Your task to perform on an android device: How much does a 2 bedroom apartment rent for in Los Angeles? Image 0: 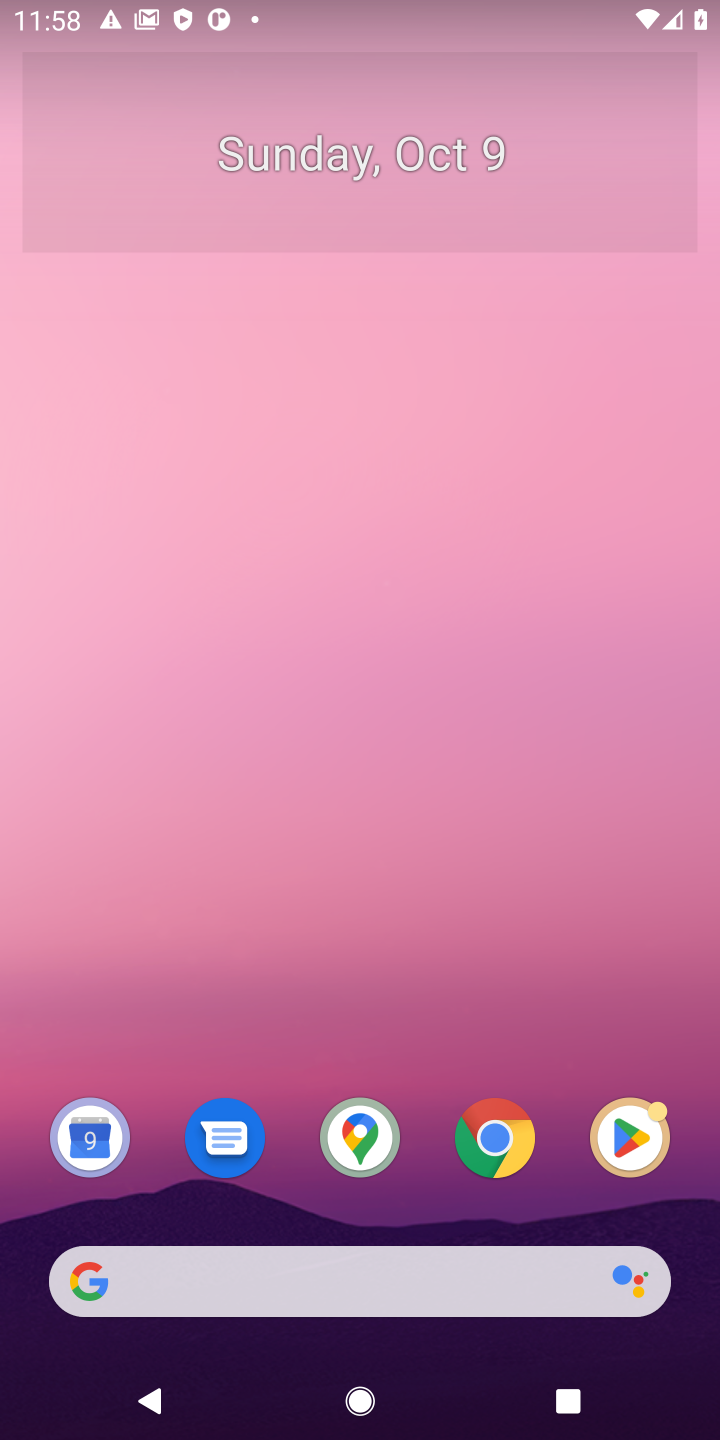
Step 0: click (501, 1153)
Your task to perform on an android device: How much does a 2 bedroom apartment rent for in Los Angeles? Image 1: 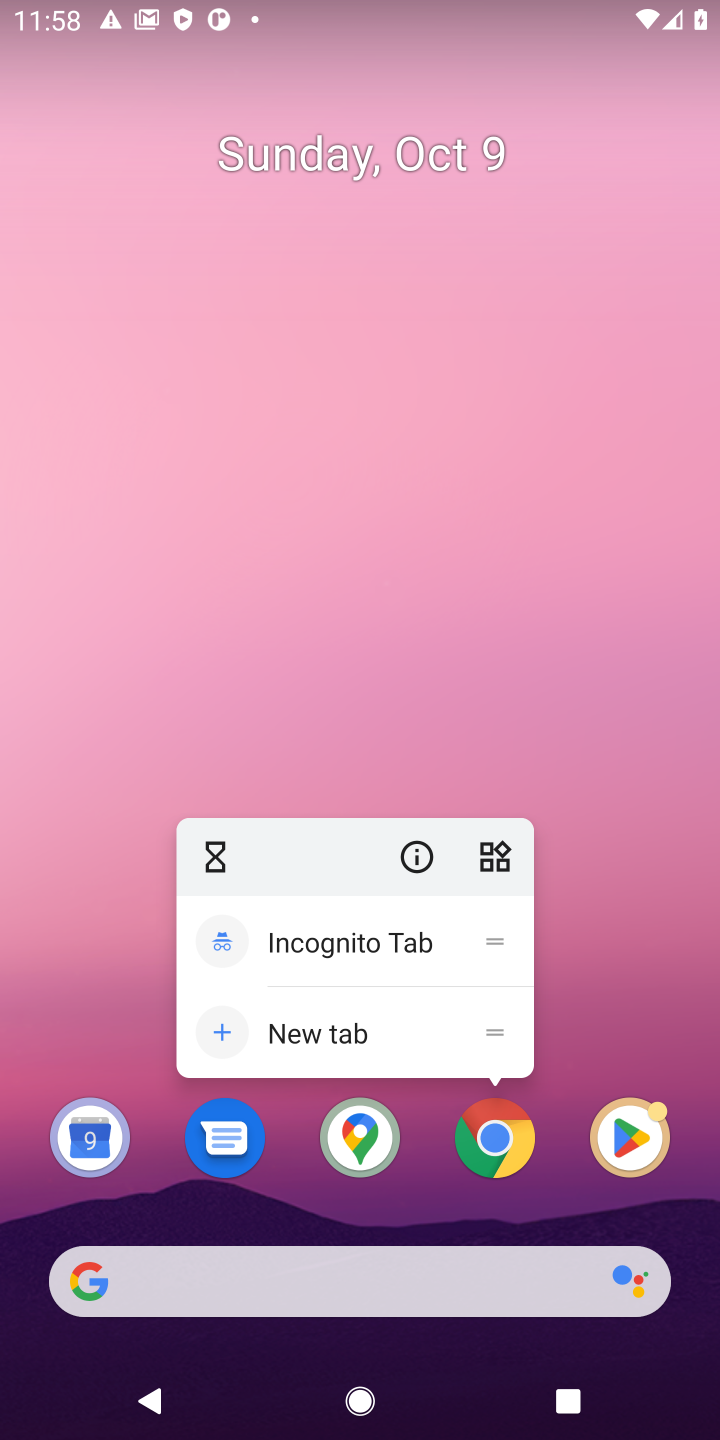
Step 1: click (501, 1153)
Your task to perform on an android device: How much does a 2 bedroom apartment rent for in Los Angeles? Image 2: 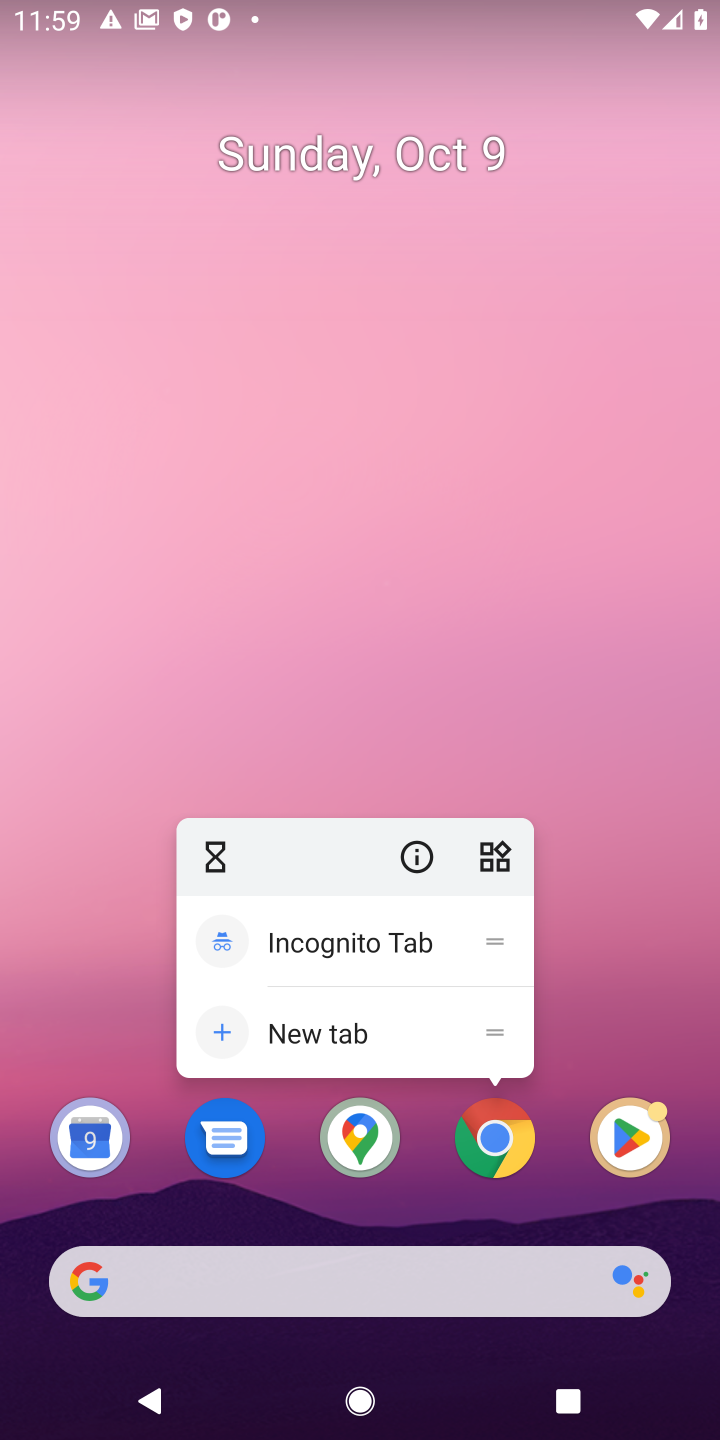
Step 2: click (501, 1153)
Your task to perform on an android device: How much does a 2 bedroom apartment rent for in Los Angeles? Image 3: 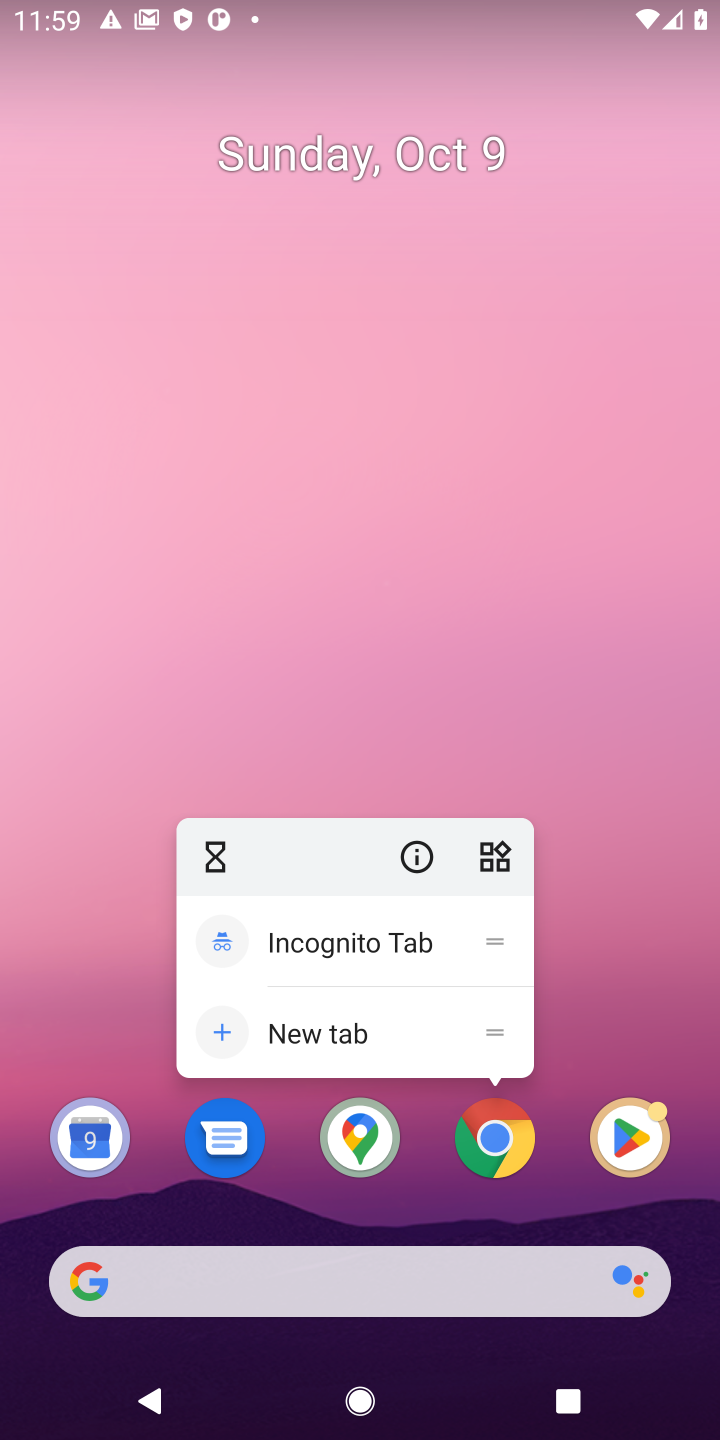
Step 3: click (491, 1139)
Your task to perform on an android device: How much does a 2 bedroom apartment rent for in Los Angeles? Image 4: 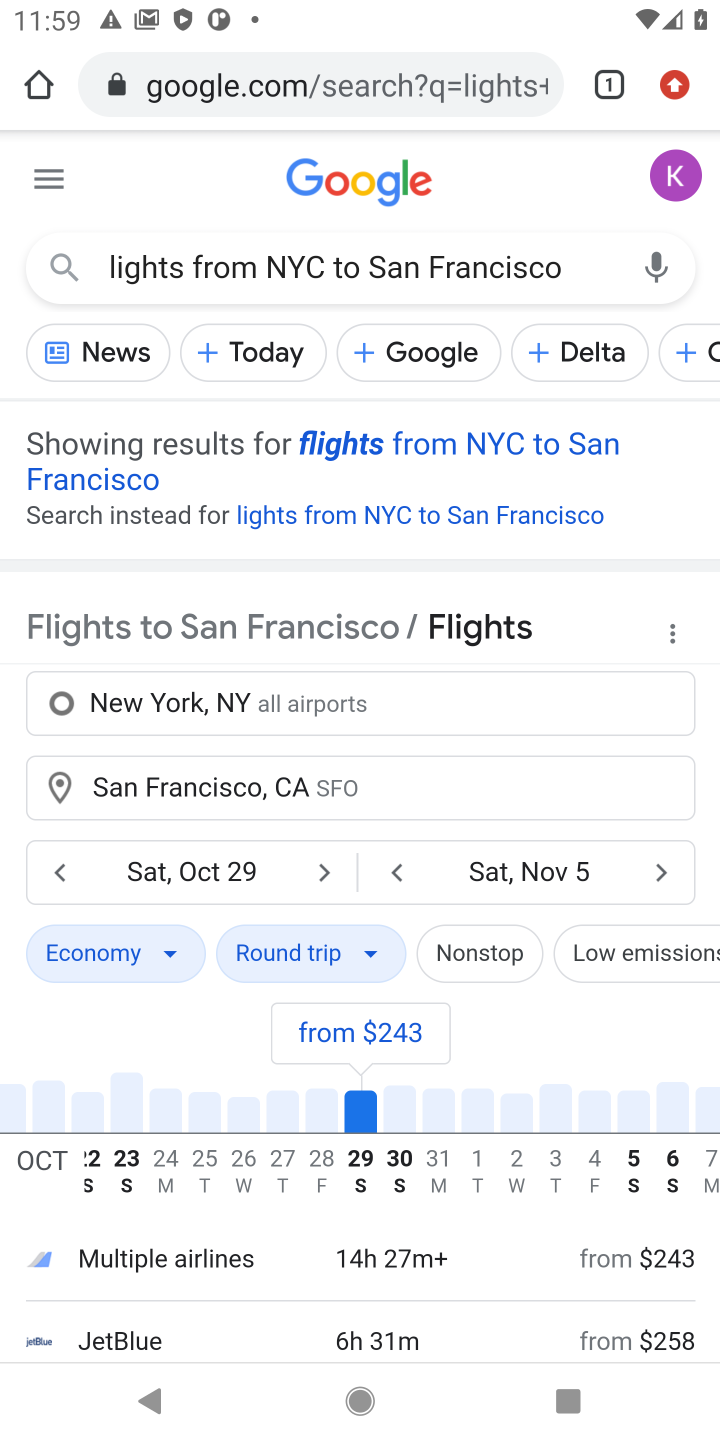
Step 4: click (559, 270)
Your task to perform on an android device: How much does a 2 bedroom apartment rent for in Los Angeles? Image 5: 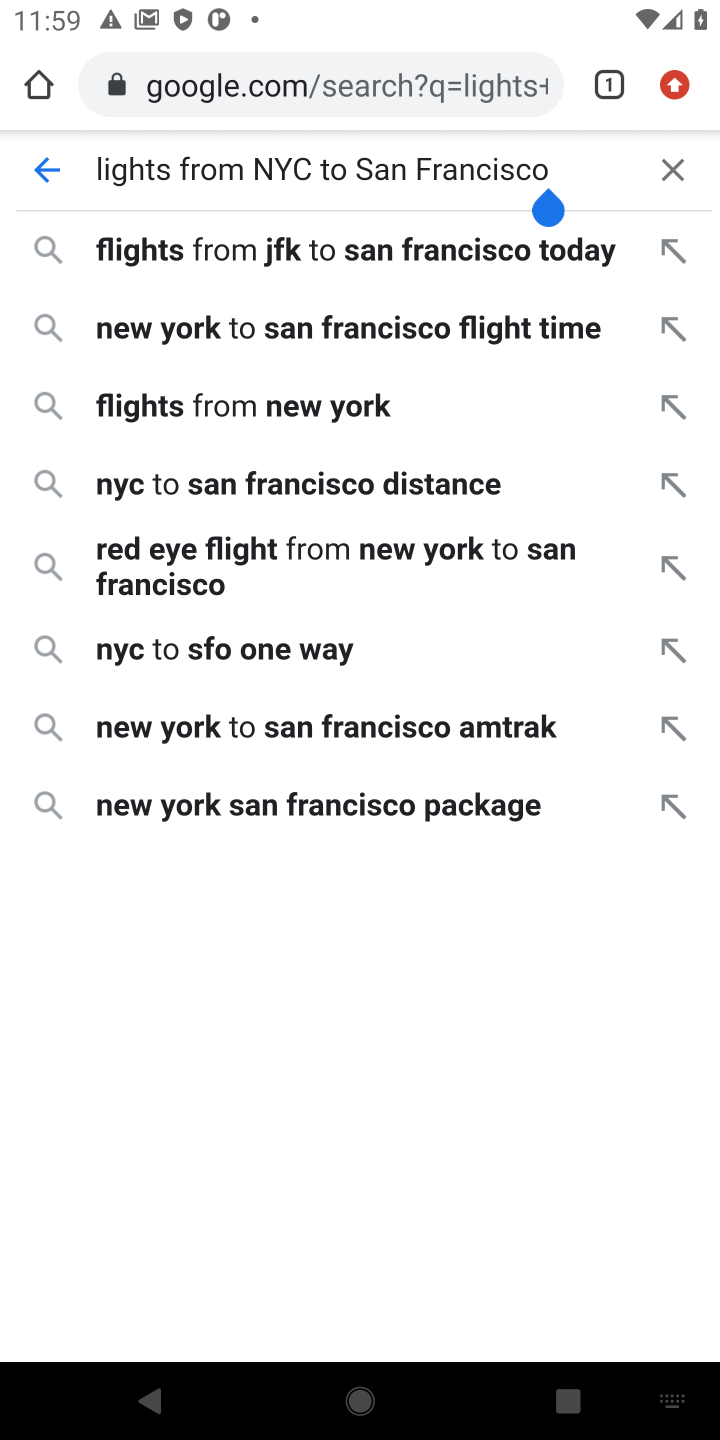
Step 5: click (676, 183)
Your task to perform on an android device: How much does a 2 bedroom apartment rent for in Los Angeles? Image 6: 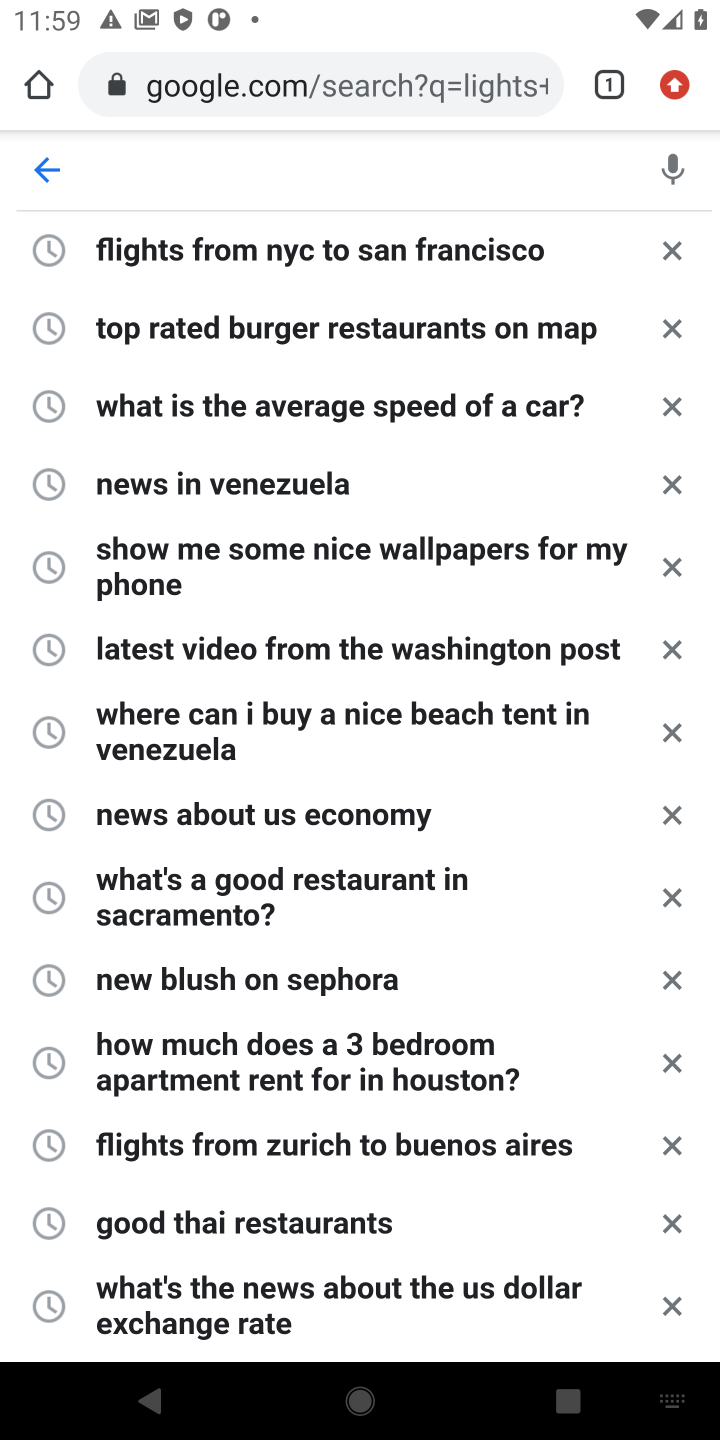
Step 6: type "How much does a 2 bedroom apartment rent for in Los Angeles?"
Your task to perform on an android device: How much does a 2 bedroom apartment rent for in Los Angeles? Image 7: 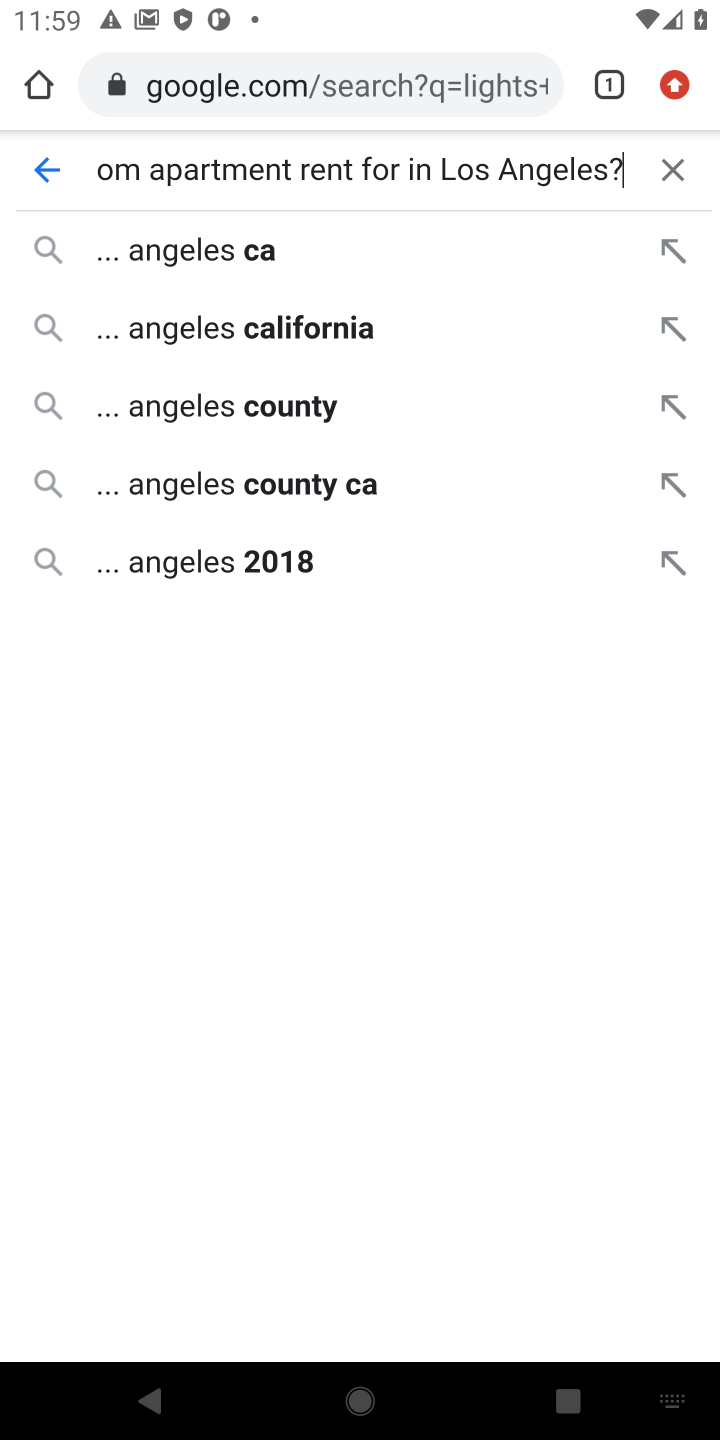
Step 7: press enter
Your task to perform on an android device: How much does a 2 bedroom apartment rent for in Los Angeles? Image 8: 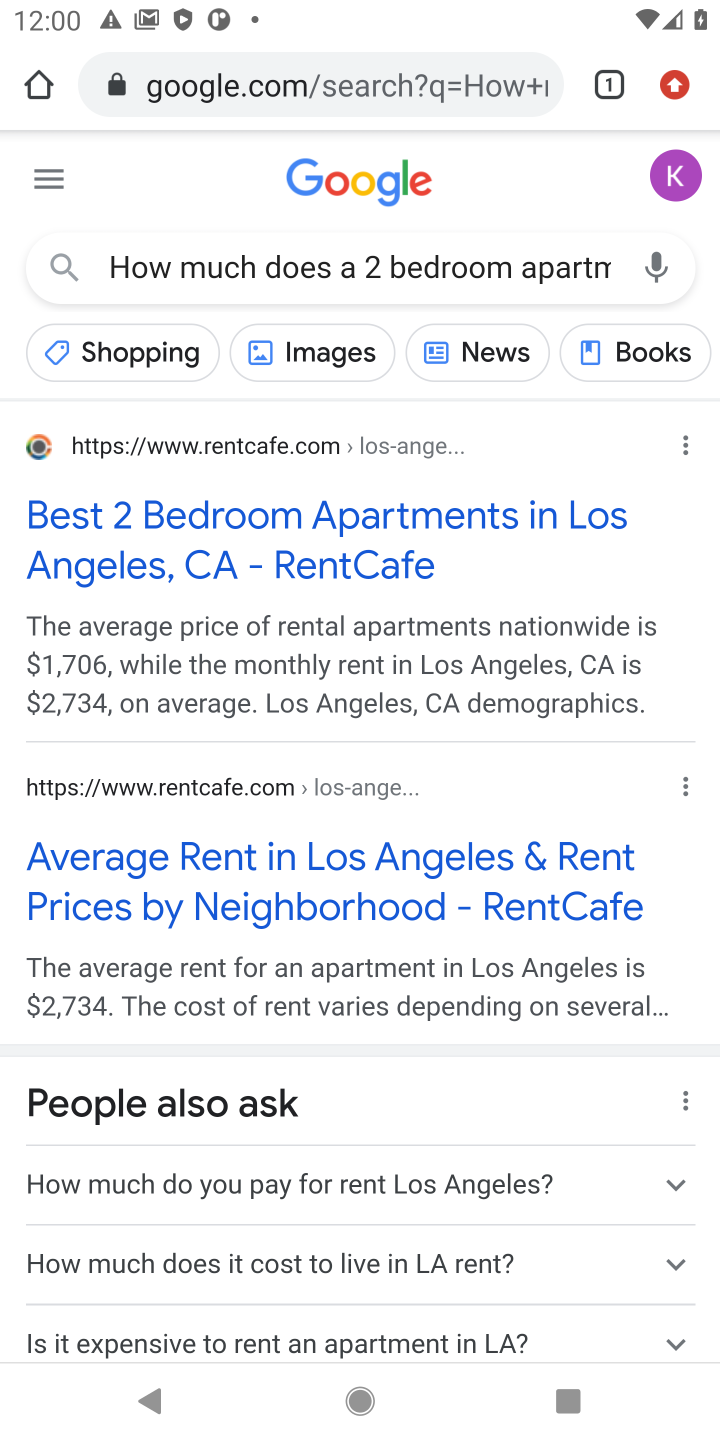
Step 8: drag from (532, 1018) to (475, 142)
Your task to perform on an android device: How much does a 2 bedroom apartment rent for in Los Angeles? Image 9: 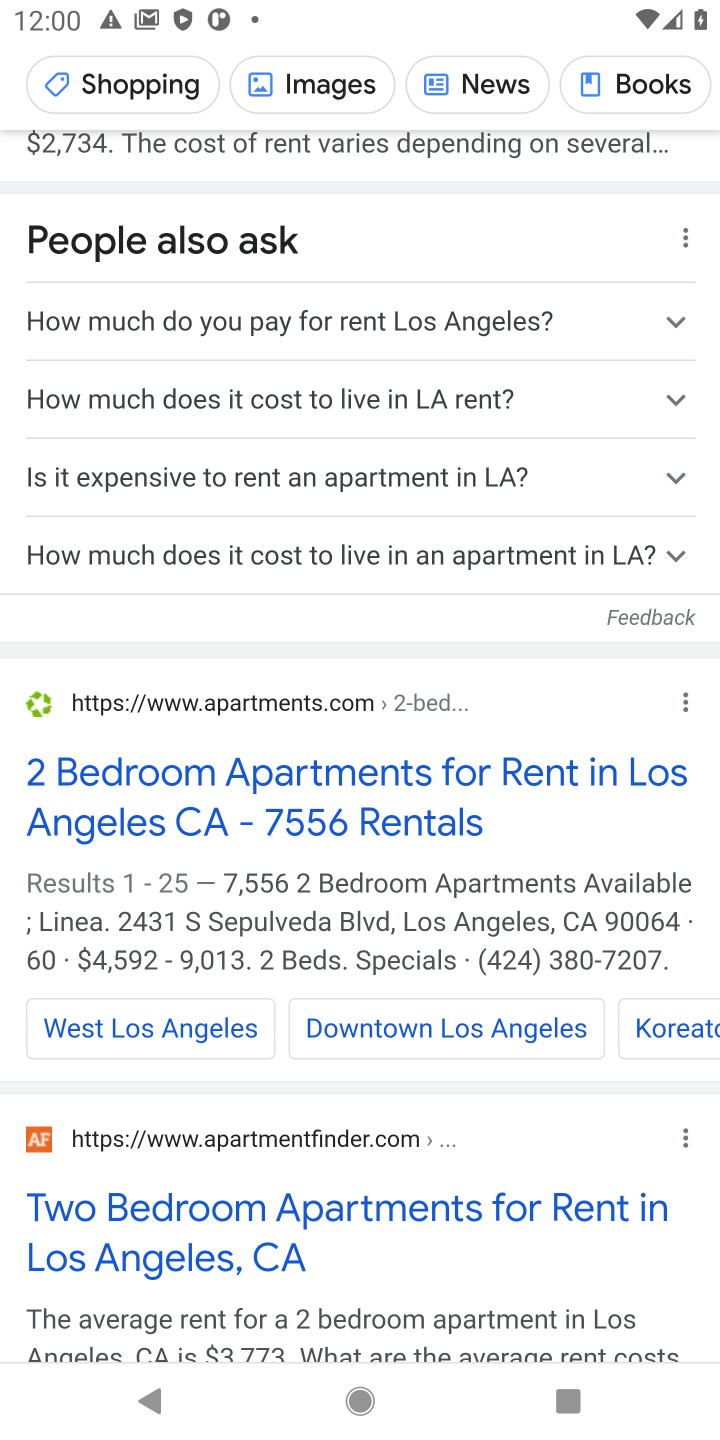
Step 9: drag from (487, 1286) to (508, 974)
Your task to perform on an android device: How much does a 2 bedroom apartment rent for in Los Angeles? Image 10: 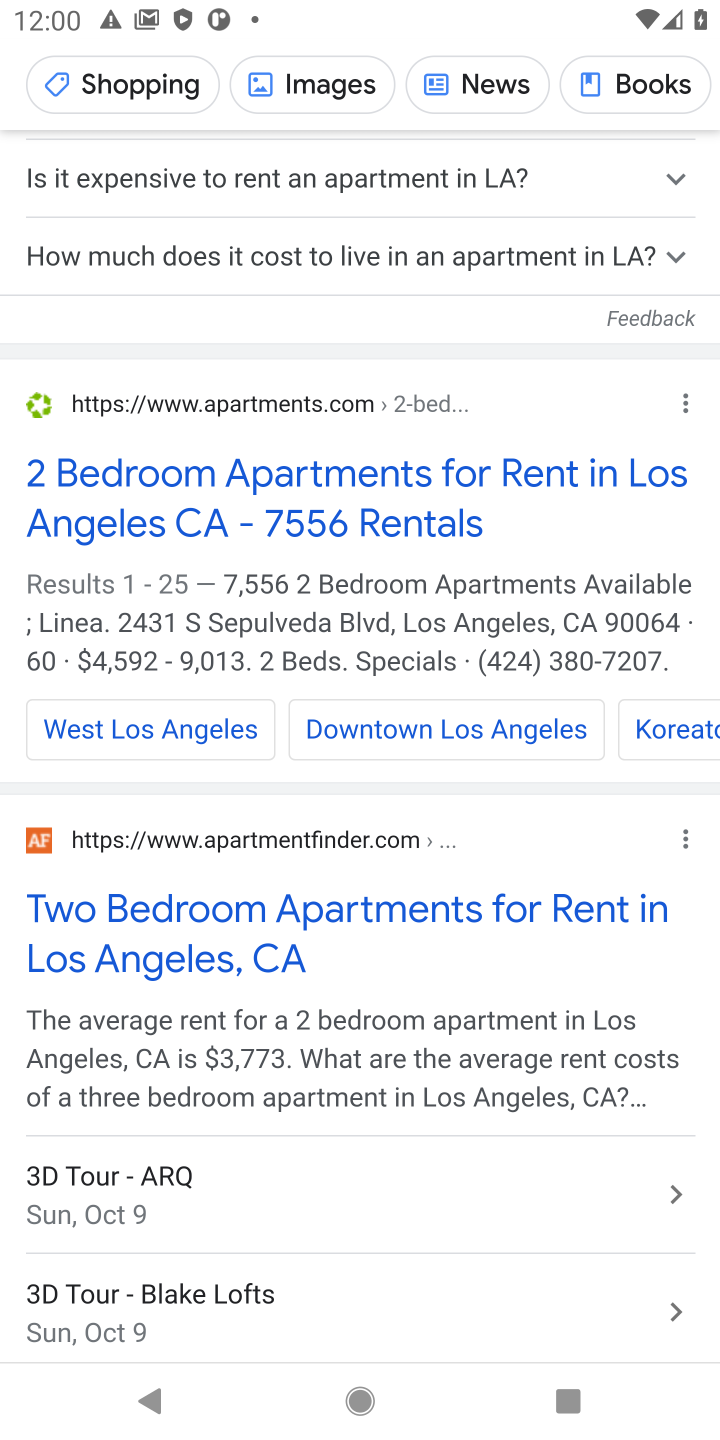
Step 10: click (381, 510)
Your task to perform on an android device: How much does a 2 bedroom apartment rent for in Los Angeles? Image 11: 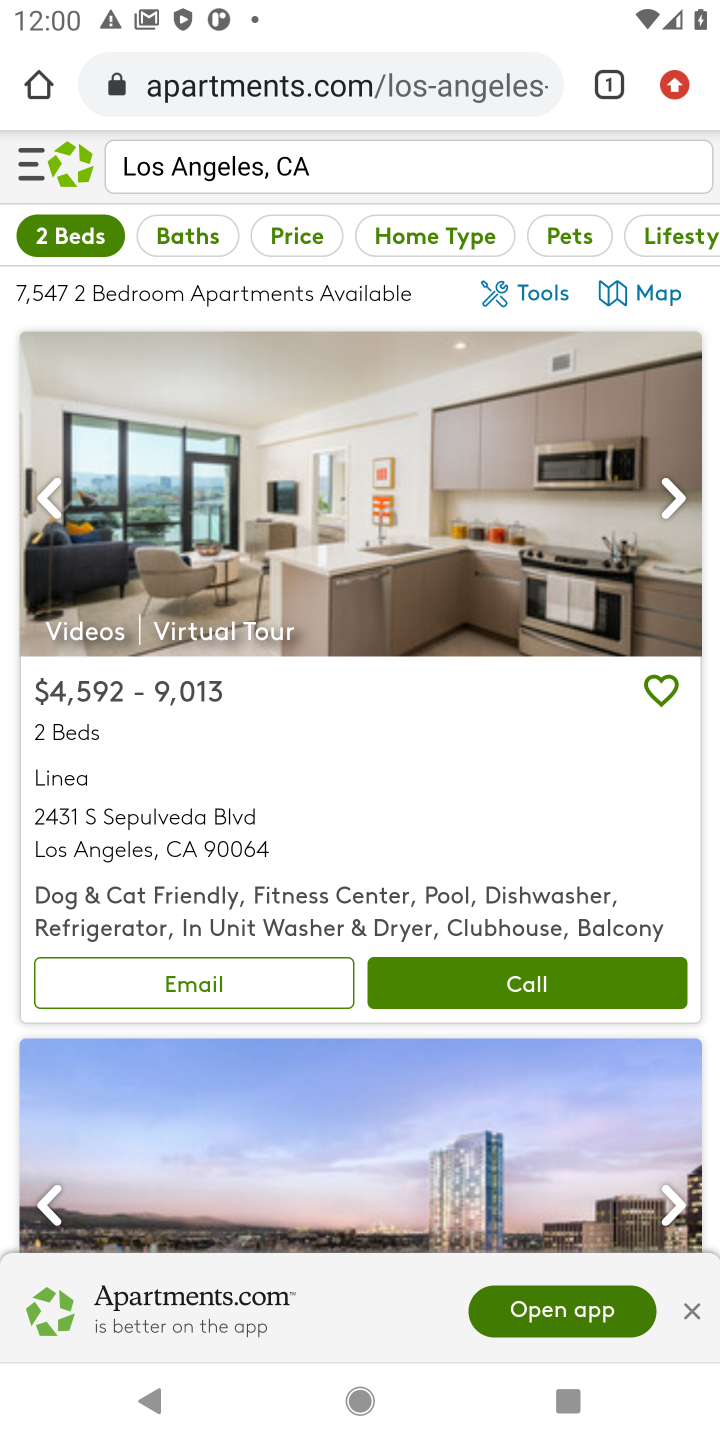
Step 11: task complete